Your task to perform on an android device: add a contact Image 0: 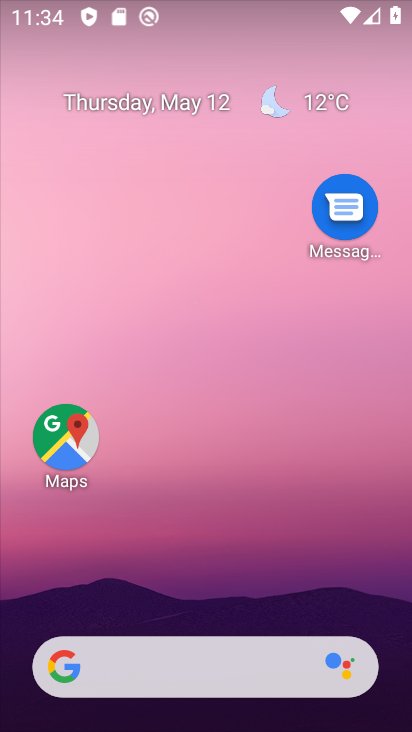
Step 0: press home button
Your task to perform on an android device: add a contact Image 1: 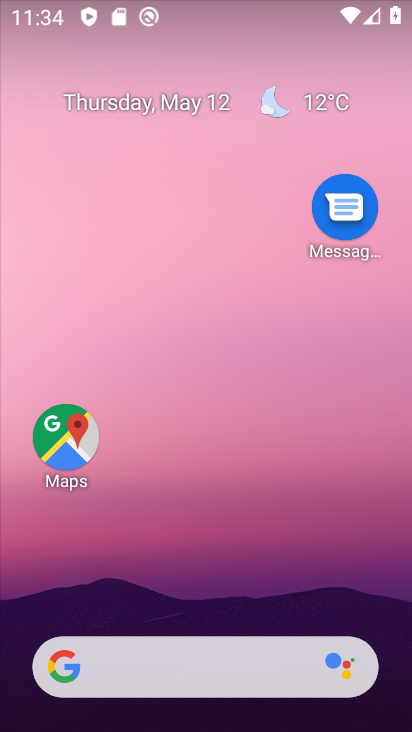
Step 1: drag from (271, 595) to (267, 119)
Your task to perform on an android device: add a contact Image 2: 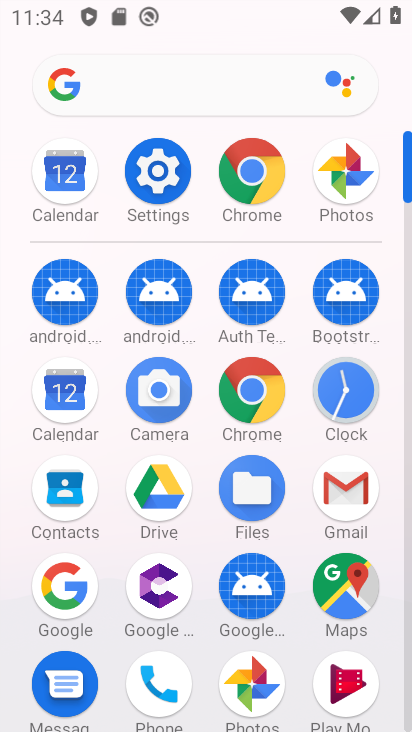
Step 2: click (76, 497)
Your task to perform on an android device: add a contact Image 3: 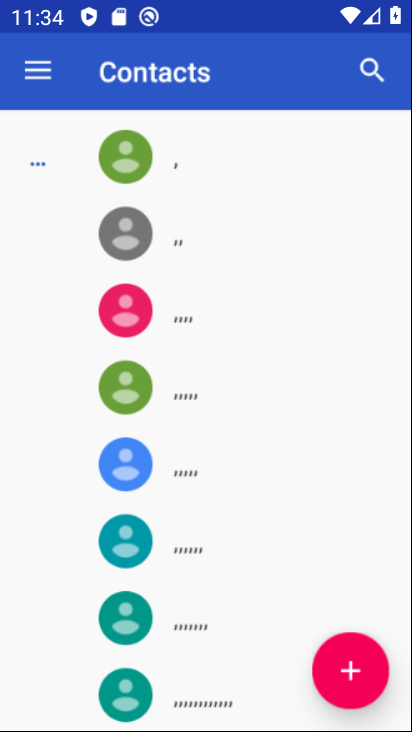
Step 3: click (354, 655)
Your task to perform on an android device: add a contact Image 4: 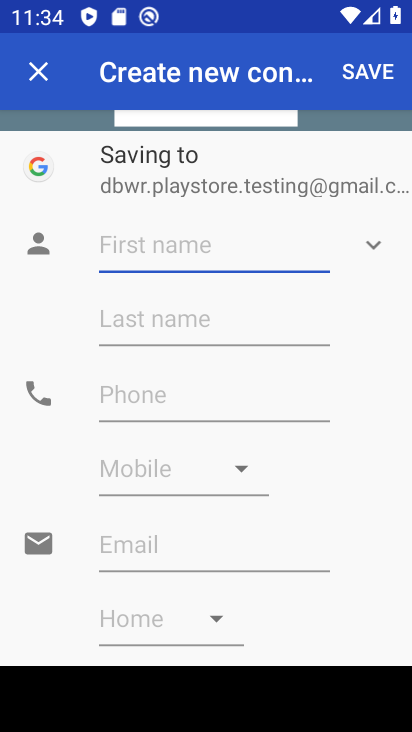
Step 4: type "fkpgok"
Your task to perform on an android device: add a contact Image 5: 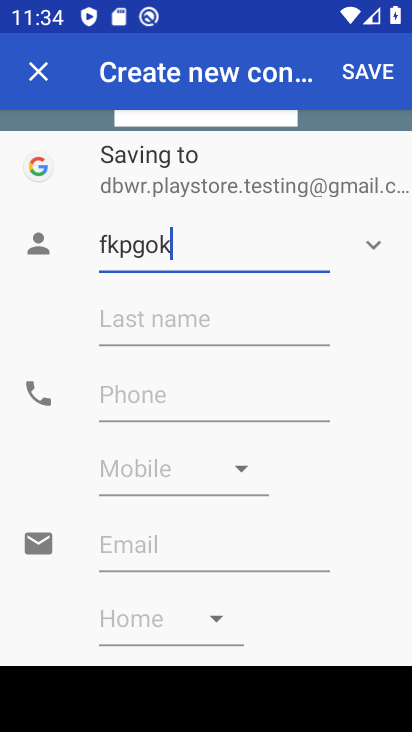
Step 5: click (210, 394)
Your task to perform on an android device: add a contact Image 6: 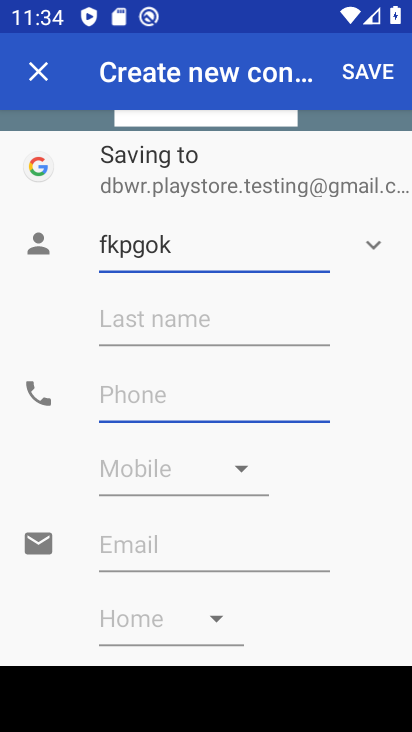
Step 6: click (210, 394)
Your task to perform on an android device: add a contact Image 7: 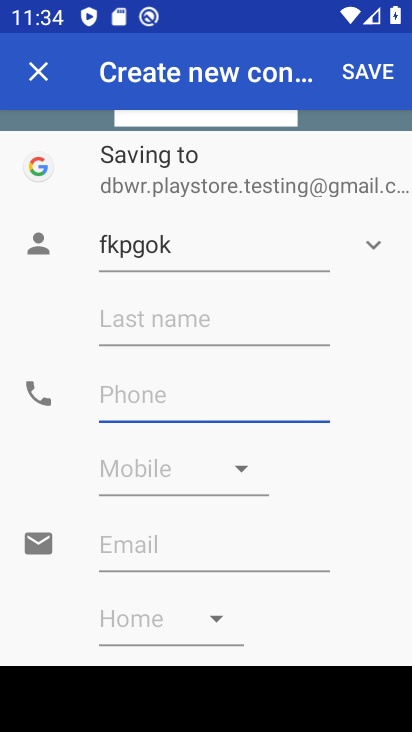
Step 7: click (210, 394)
Your task to perform on an android device: add a contact Image 8: 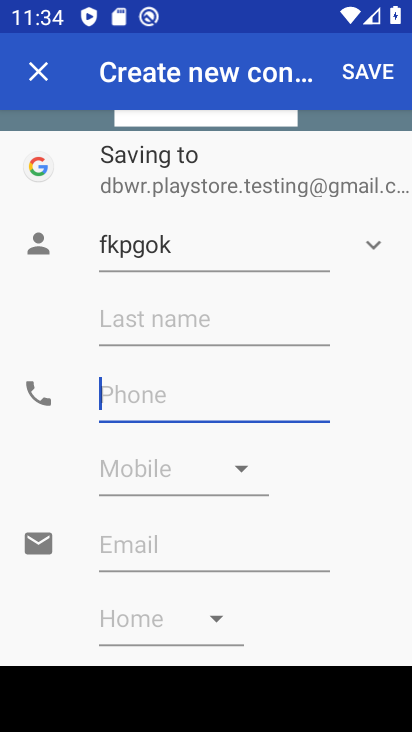
Step 8: type "48758"
Your task to perform on an android device: add a contact Image 9: 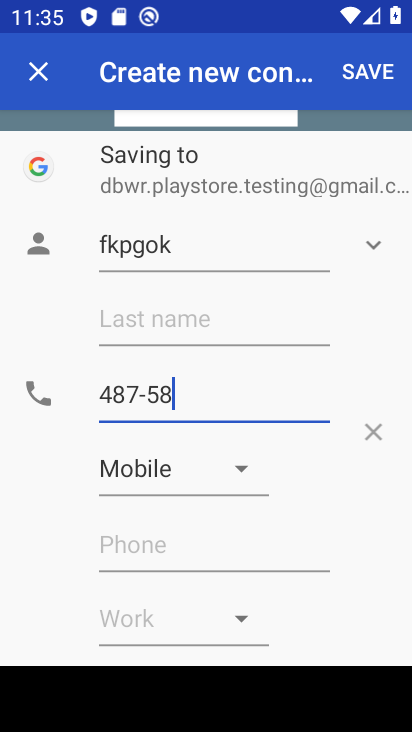
Step 9: click (356, 68)
Your task to perform on an android device: add a contact Image 10: 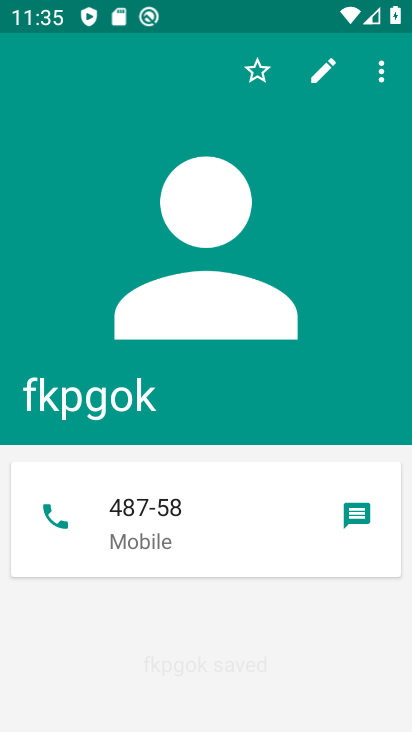
Step 10: task complete